Your task to perform on an android device: Open Wikipedia Image 0: 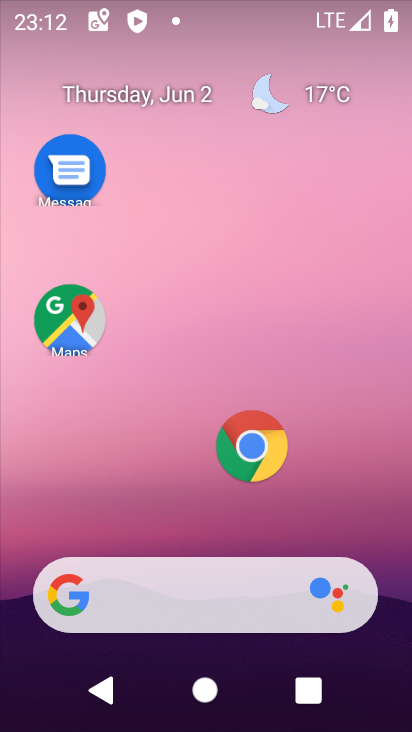
Step 0: click (252, 448)
Your task to perform on an android device: Open Wikipedia Image 1: 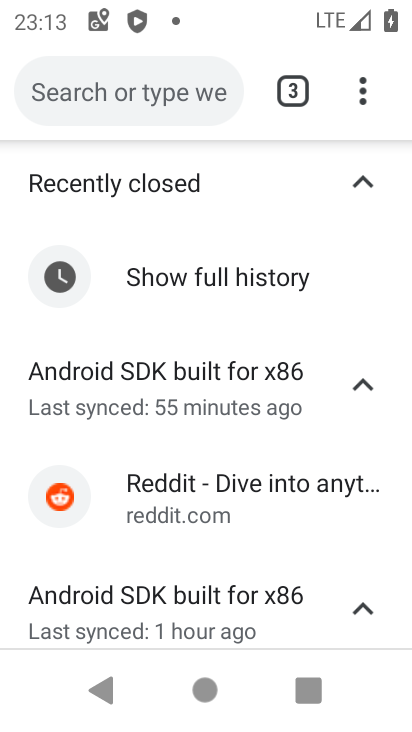
Step 1: click (177, 89)
Your task to perform on an android device: Open Wikipedia Image 2: 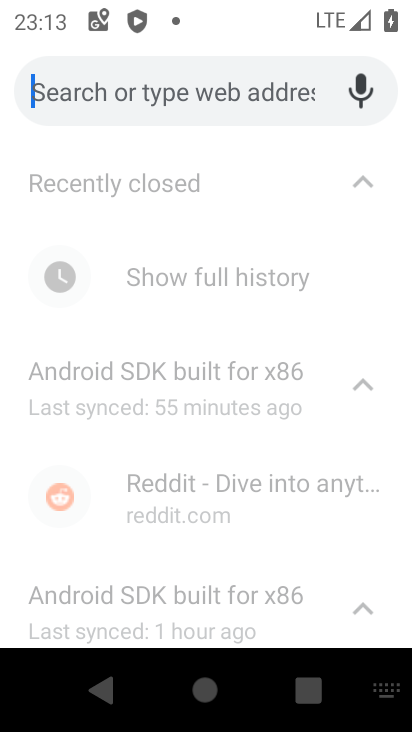
Step 2: type "wikipedia"
Your task to perform on an android device: Open Wikipedia Image 3: 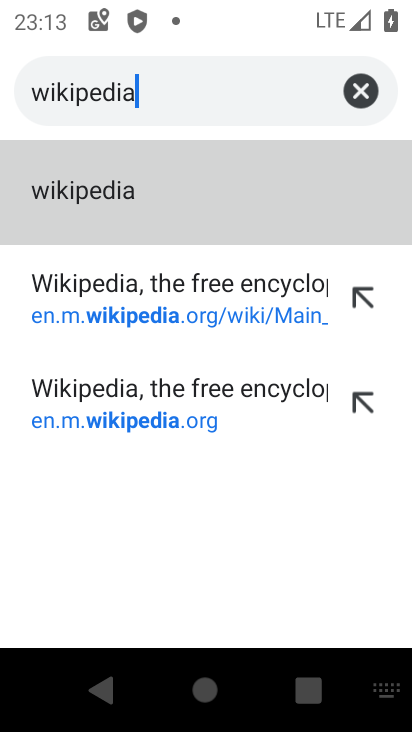
Step 3: click (178, 276)
Your task to perform on an android device: Open Wikipedia Image 4: 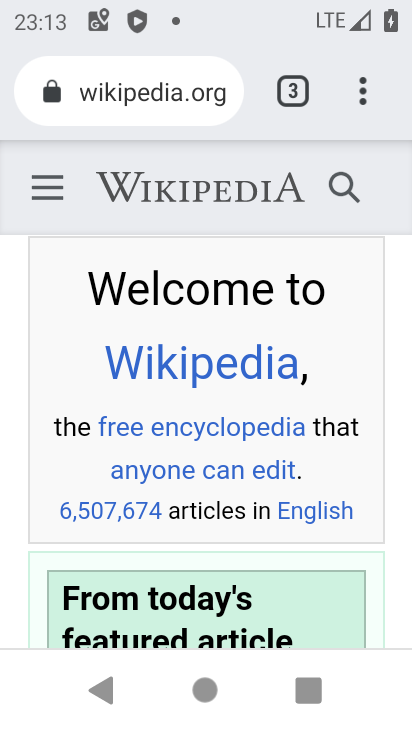
Step 4: task complete